Your task to perform on an android device: Open the map Image 0: 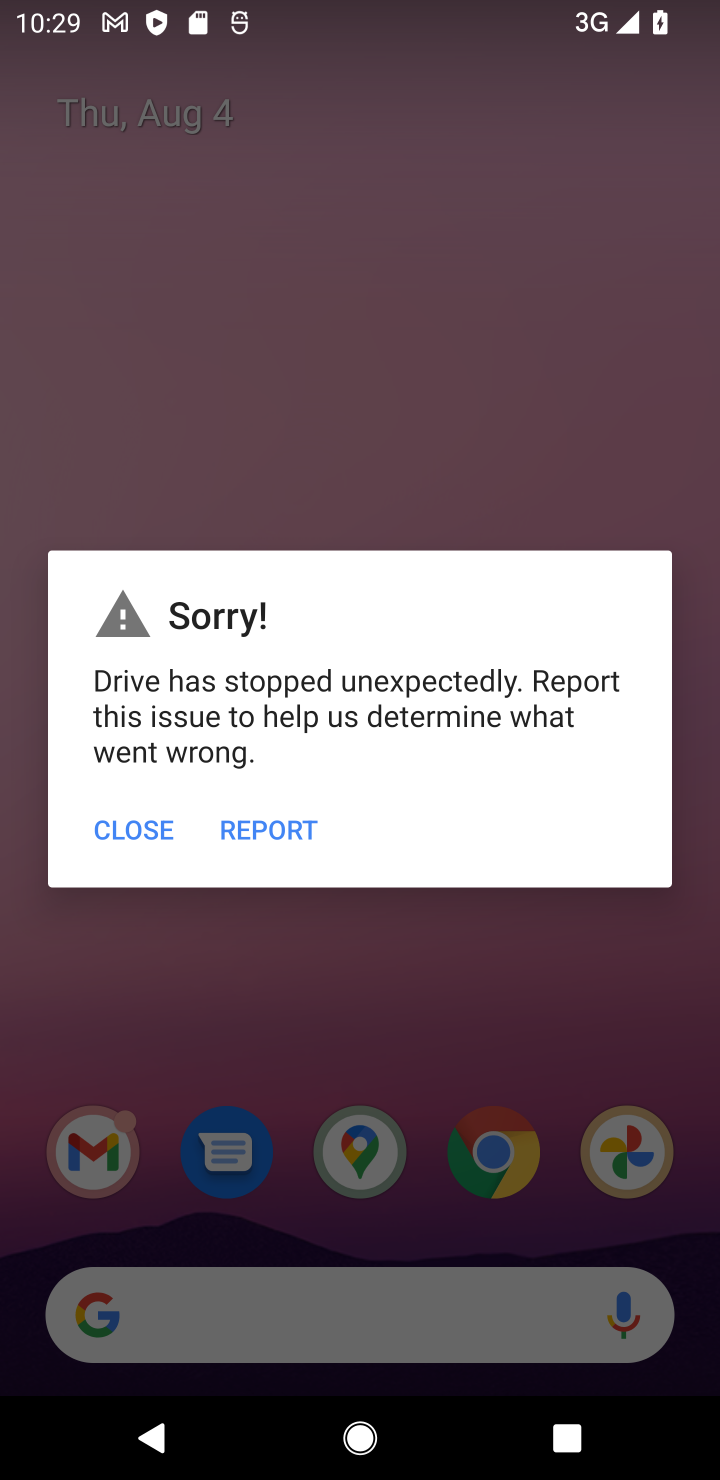
Step 0: click (120, 815)
Your task to perform on an android device: Open the map Image 1: 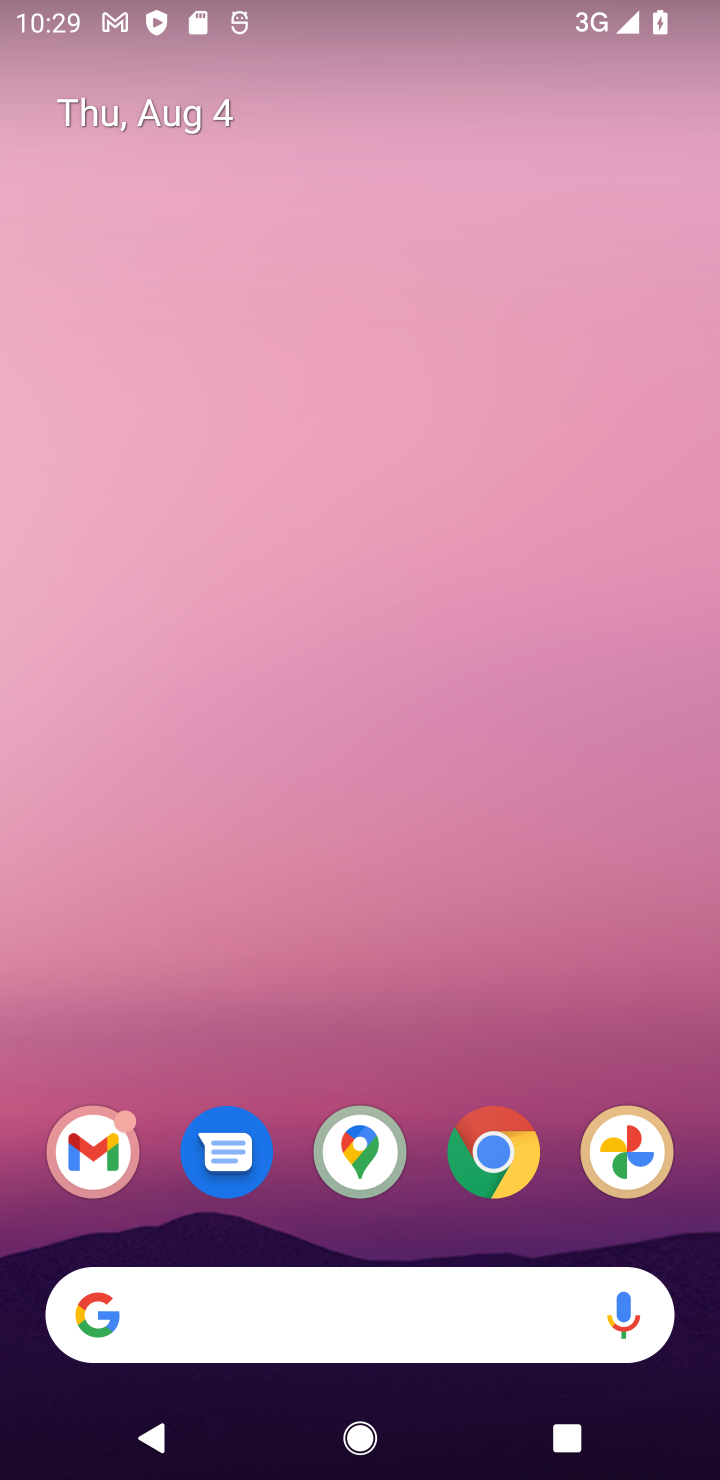
Step 1: click (365, 1150)
Your task to perform on an android device: Open the map Image 2: 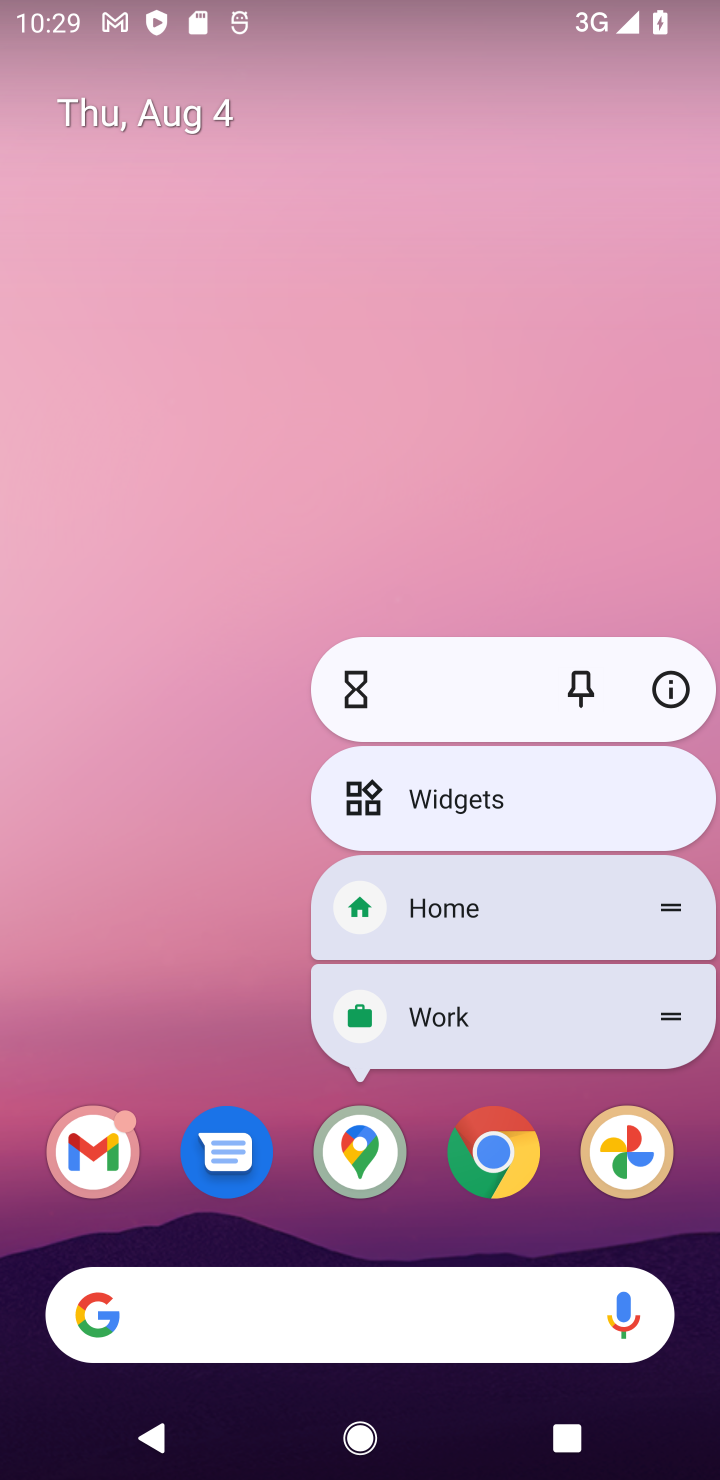
Step 2: click (388, 1160)
Your task to perform on an android device: Open the map Image 3: 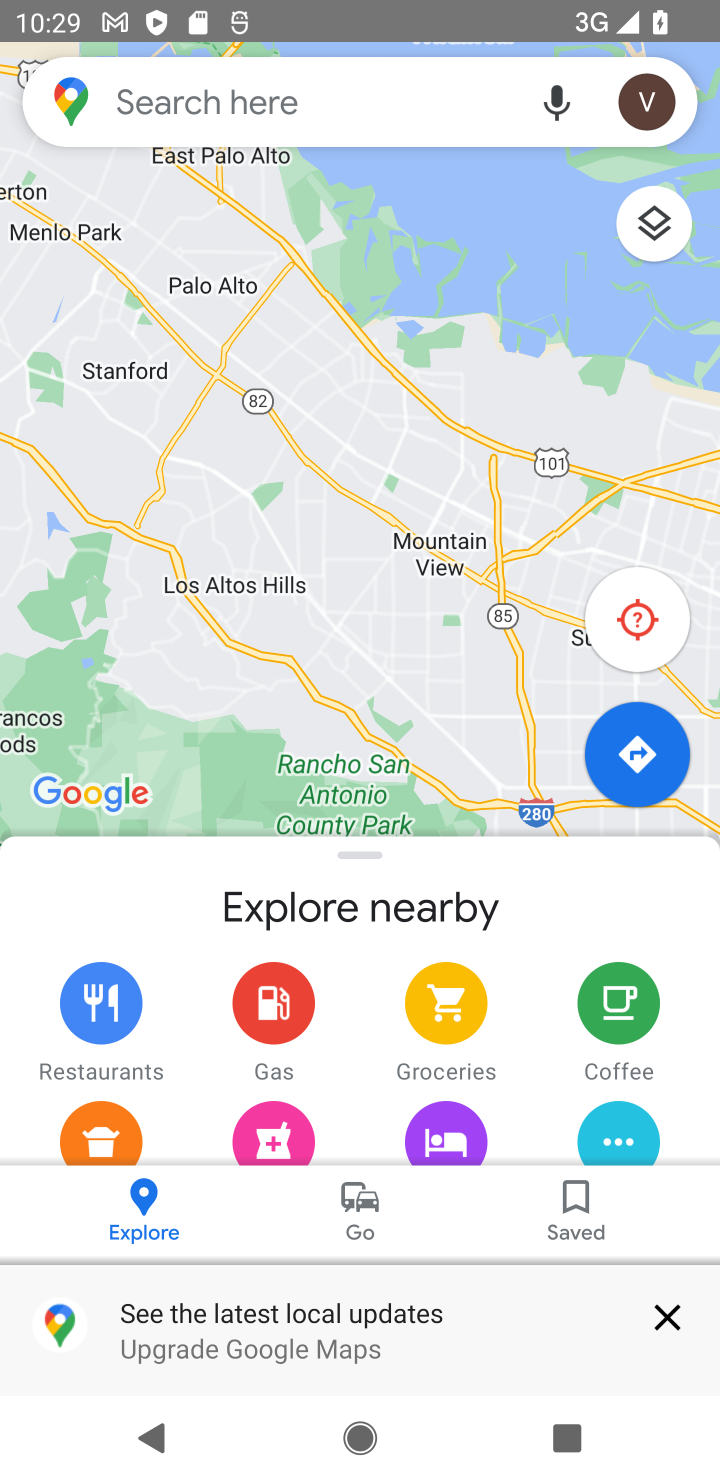
Step 3: task complete